Your task to perform on an android device: Open the stopwatch Image 0: 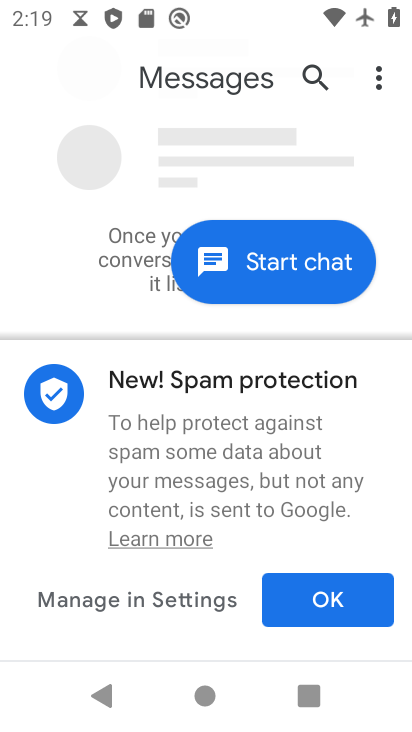
Step 0: press back button
Your task to perform on an android device: Open the stopwatch Image 1: 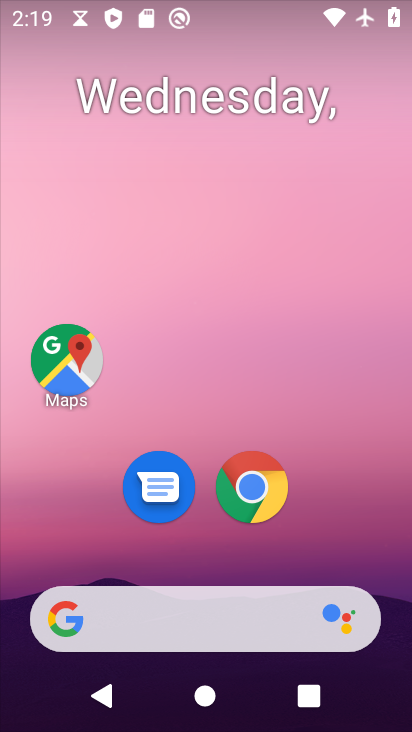
Step 1: drag from (257, 585) to (209, 174)
Your task to perform on an android device: Open the stopwatch Image 2: 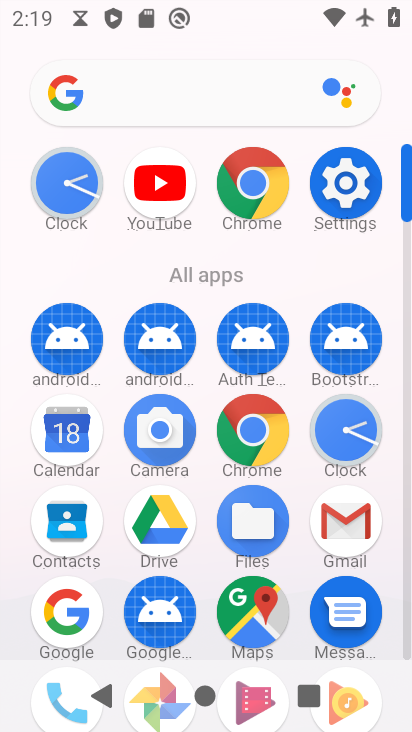
Step 2: click (342, 442)
Your task to perform on an android device: Open the stopwatch Image 3: 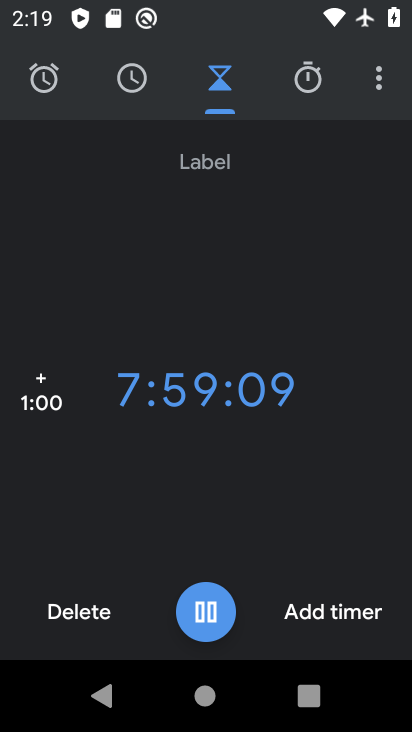
Step 3: click (297, 85)
Your task to perform on an android device: Open the stopwatch Image 4: 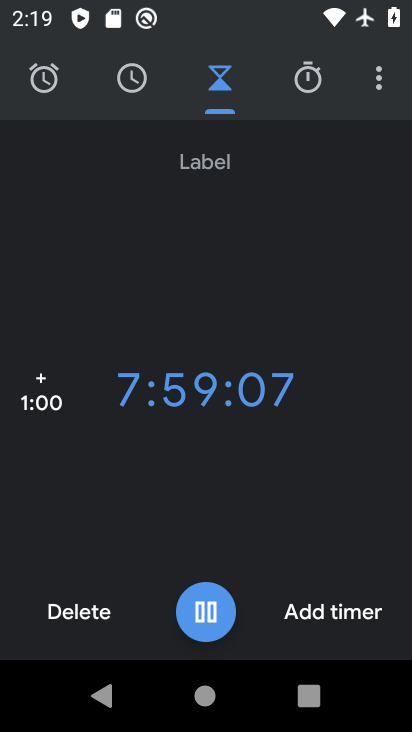
Step 4: click (285, 157)
Your task to perform on an android device: Open the stopwatch Image 5: 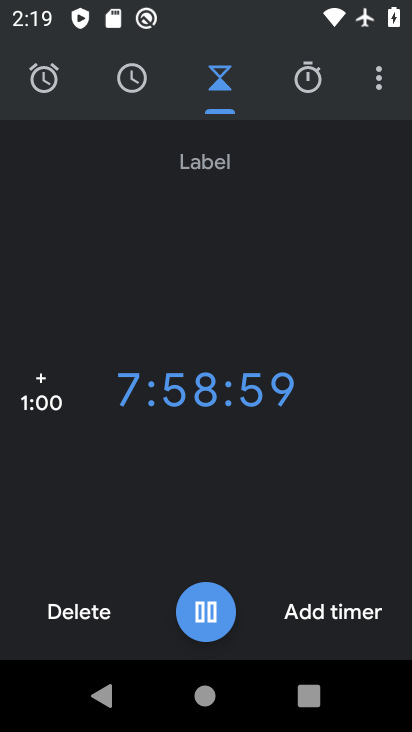
Step 5: click (313, 101)
Your task to perform on an android device: Open the stopwatch Image 6: 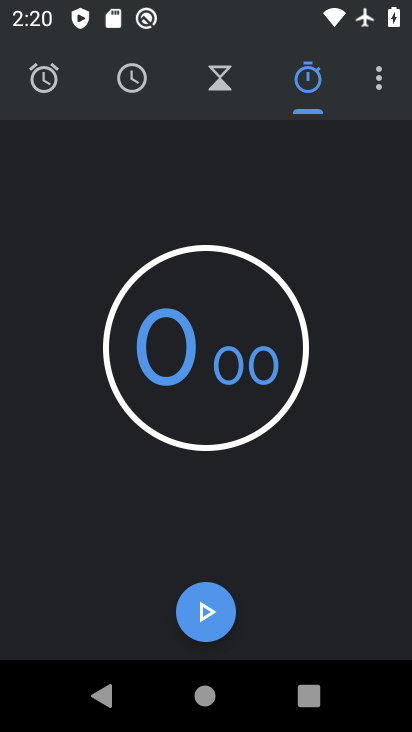
Step 6: click (205, 622)
Your task to perform on an android device: Open the stopwatch Image 7: 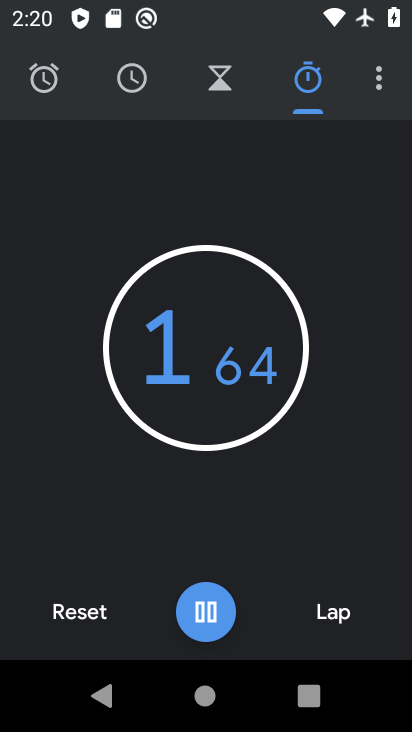
Step 7: click (203, 615)
Your task to perform on an android device: Open the stopwatch Image 8: 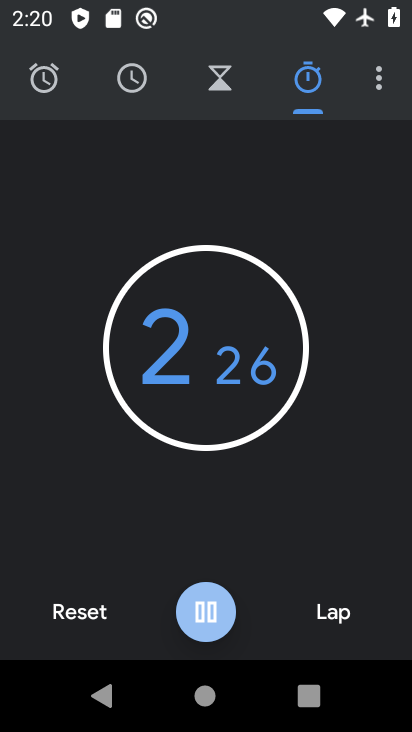
Step 8: click (202, 615)
Your task to perform on an android device: Open the stopwatch Image 9: 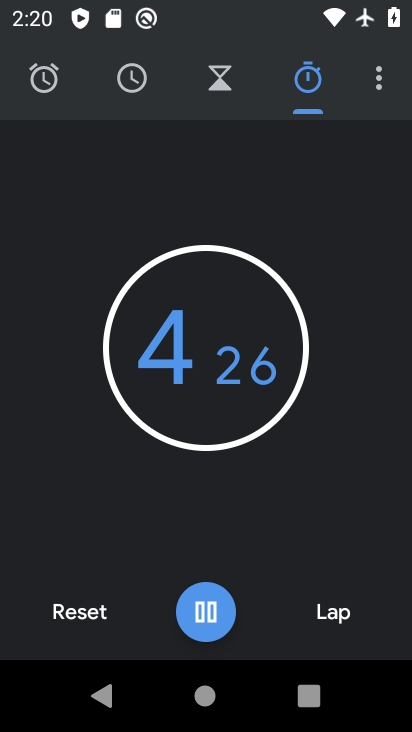
Step 9: click (203, 605)
Your task to perform on an android device: Open the stopwatch Image 10: 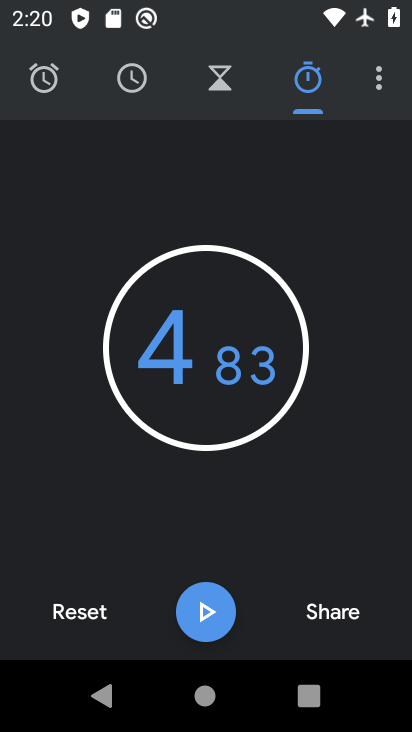
Step 10: task complete